Your task to perform on an android device: Empty the shopping cart on newegg. Search for beats solo 3 on newegg, select the first entry, add it to the cart, then select checkout. Image 0: 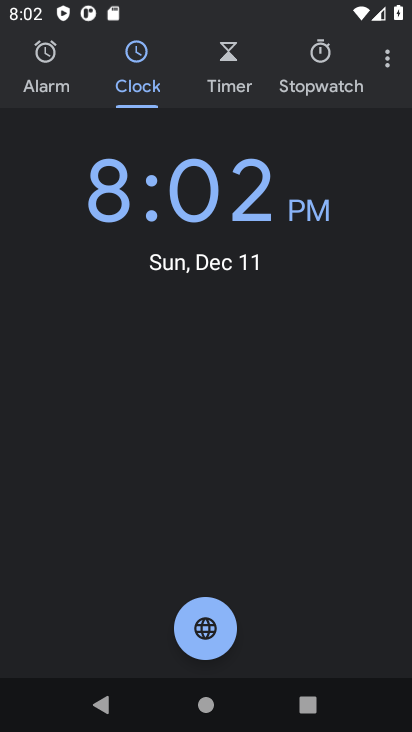
Step 0: press home button
Your task to perform on an android device: Empty the shopping cart on newegg. Search for beats solo 3 on newegg, select the first entry, add it to the cart, then select checkout. Image 1: 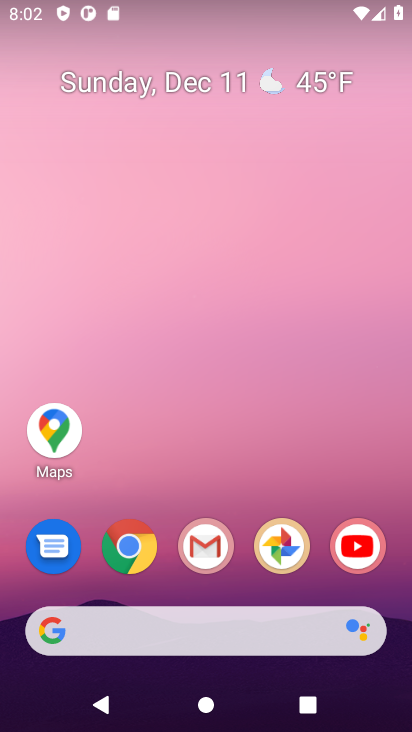
Step 1: click (129, 553)
Your task to perform on an android device: Empty the shopping cart on newegg. Search for beats solo 3 on newegg, select the first entry, add it to the cart, then select checkout. Image 2: 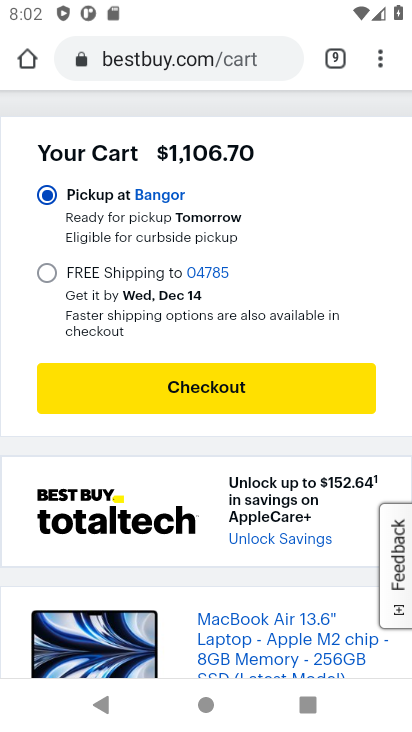
Step 2: click (170, 57)
Your task to perform on an android device: Empty the shopping cart on newegg. Search for beats solo 3 on newegg, select the first entry, add it to the cart, then select checkout. Image 3: 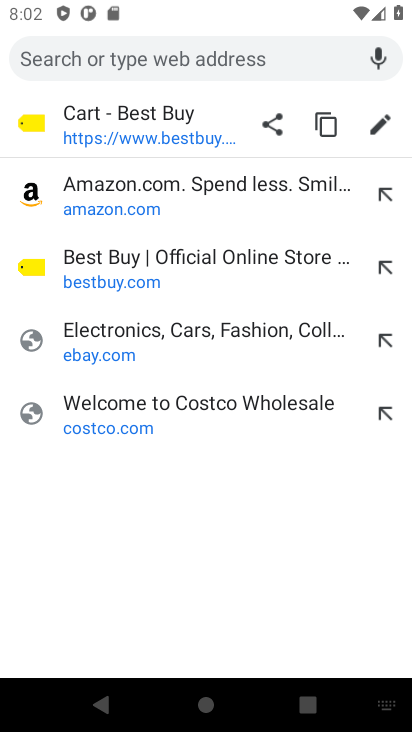
Step 3: type "newegg.com"
Your task to perform on an android device: Empty the shopping cart on newegg. Search for beats solo 3 on newegg, select the first entry, add it to the cart, then select checkout. Image 4: 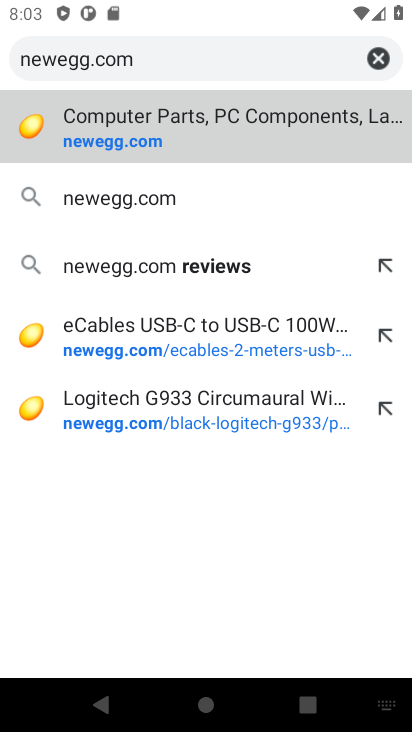
Step 4: click (127, 152)
Your task to perform on an android device: Empty the shopping cart on newegg. Search for beats solo 3 on newegg, select the first entry, add it to the cart, then select checkout. Image 5: 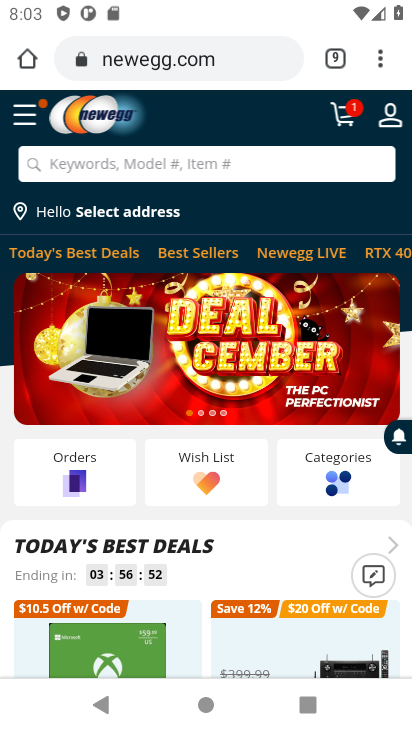
Step 5: click (349, 119)
Your task to perform on an android device: Empty the shopping cart on newegg. Search for beats solo 3 on newegg, select the first entry, add it to the cart, then select checkout. Image 6: 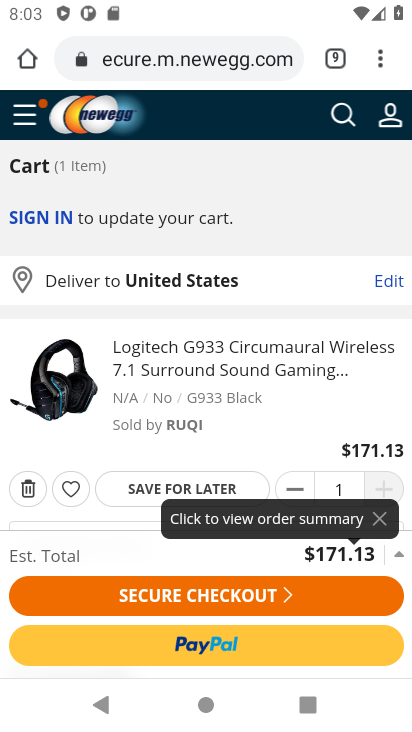
Step 6: click (24, 496)
Your task to perform on an android device: Empty the shopping cart on newegg. Search for beats solo 3 on newegg, select the first entry, add it to the cart, then select checkout. Image 7: 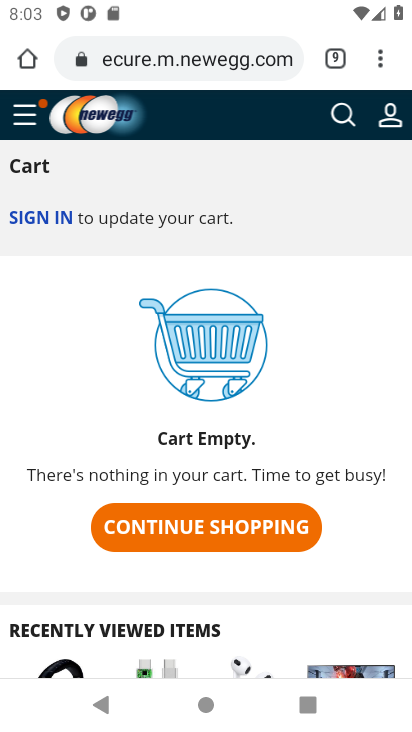
Step 7: click (331, 116)
Your task to perform on an android device: Empty the shopping cart on newegg. Search for beats solo 3 on newegg, select the first entry, add it to the cart, then select checkout. Image 8: 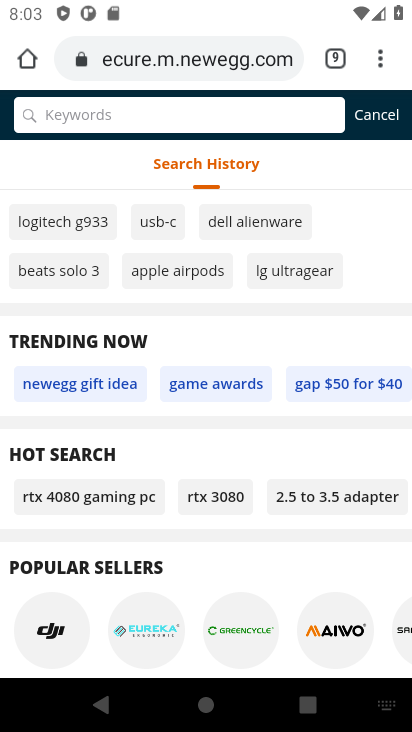
Step 8: type " beats solo 3"
Your task to perform on an android device: Empty the shopping cart on newegg. Search for beats solo 3 on newegg, select the first entry, add it to the cart, then select checkout. Image 9: 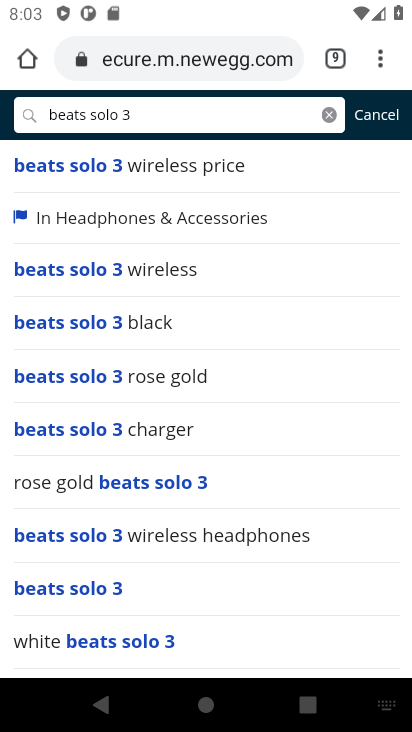
Step 9: click (84, 592)
Your task to perform on an android device: Empty the shopping cart on newegg. Search for beats solo 3 on newegg, select the first entry, add it to the cart, then select checkout. Image 10: 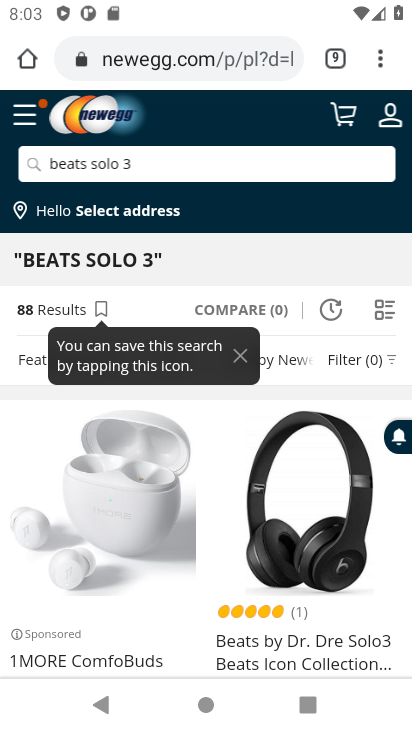
Step 10: task complete